Your task to perform on an android device: Do I have any events this weekend? Image 0: 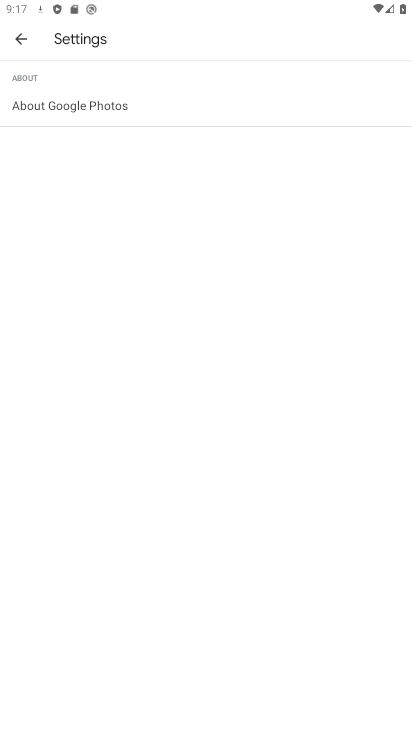
Step 0: press home button
Your task to perform on an android device: Do I have any events this weekend? Image 1: 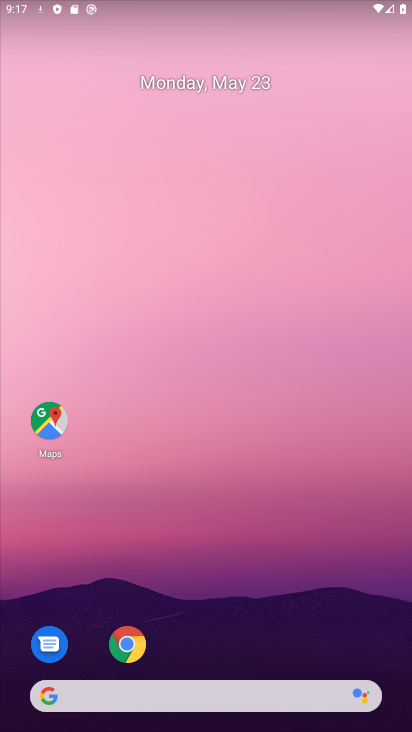
Step 1: drag from (216, 723) to (140, 193)
Your task to perform on an android device: Do I have any events this weekend? Image 2: 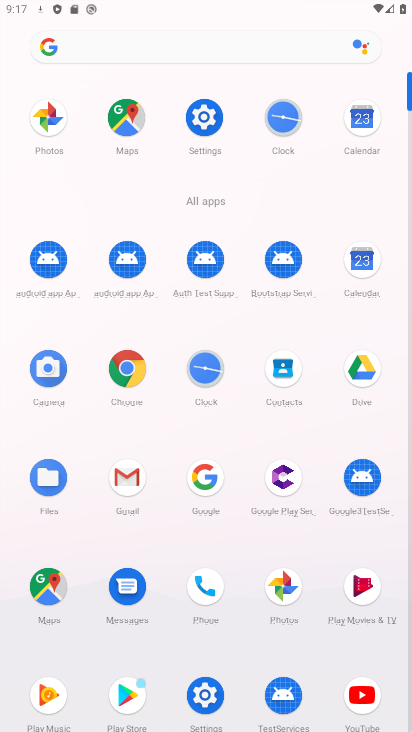
Step 2: click (366, 259)
Your task to perform on an android device: Do I have any events this weekend? Image 3: 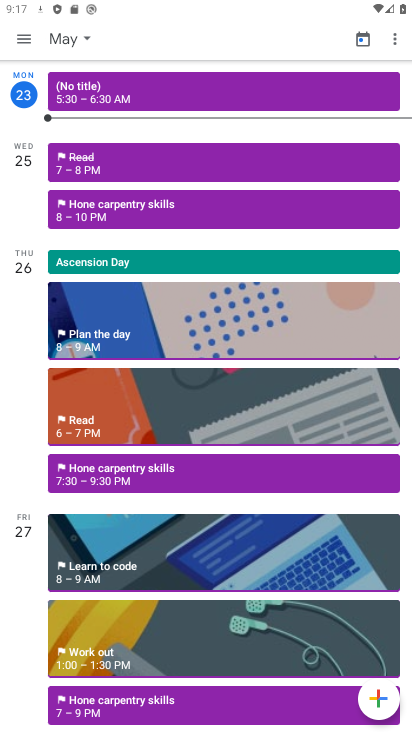
Step 3: task complete